Your task to perform on an android device: create a new album in the google photos Image 0: 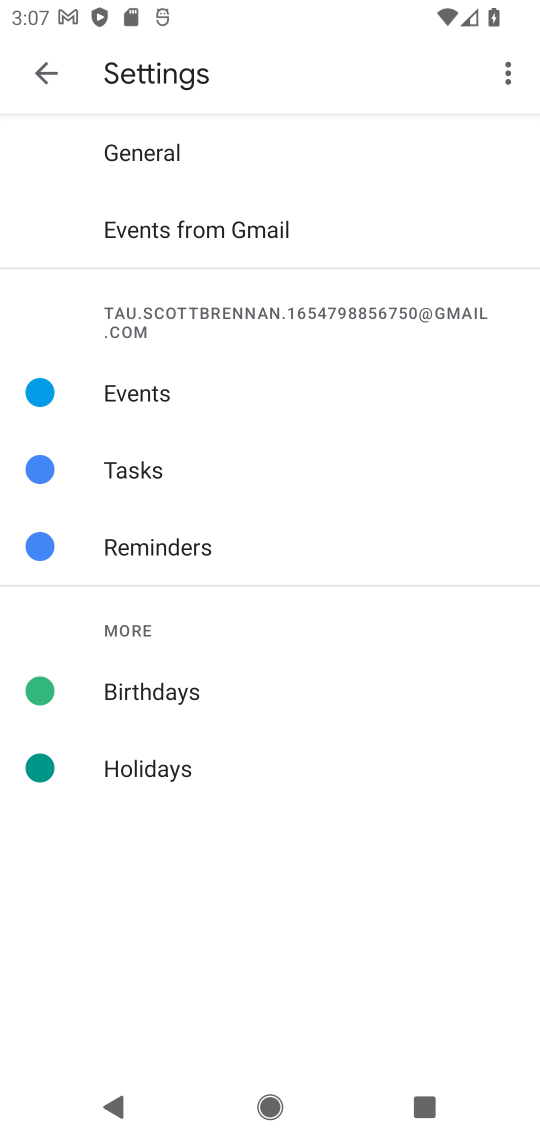
Step 0: press home button
Your task to perform on an android device: create a new album in the google photos Image 1: 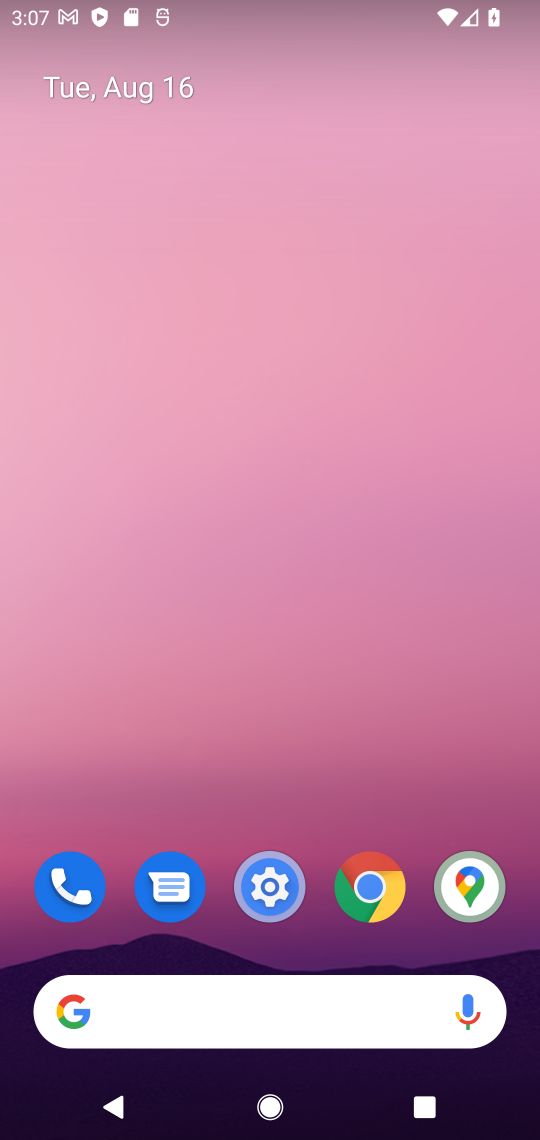
Step 1: drag from (338, 715) to (320, 24)
Your task to perform on an android device: create a new album in the google photos Image 2: 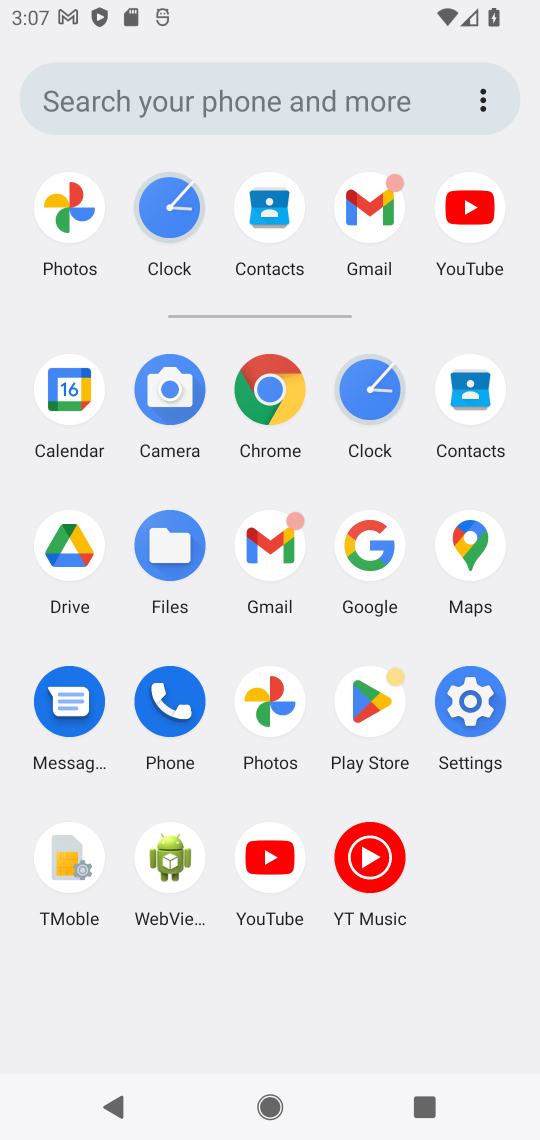
Step 2: click (279, 713)
Your task to perform on an android device: create a new album in the google photos Image 3: 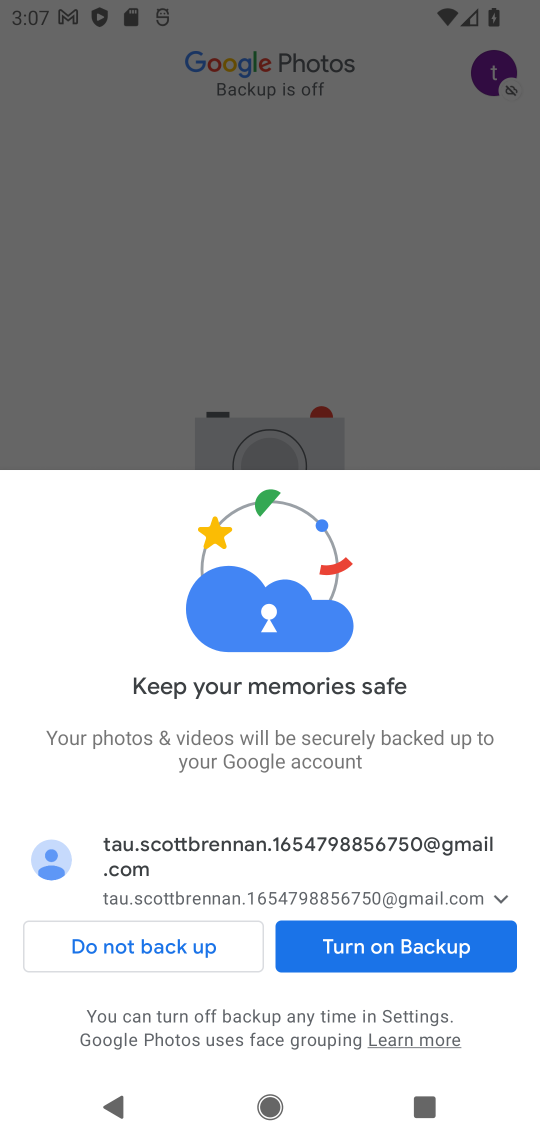
Step 3: click (396, 935)
Your task to perform on an android device: create a new album in the google photos Image 4: 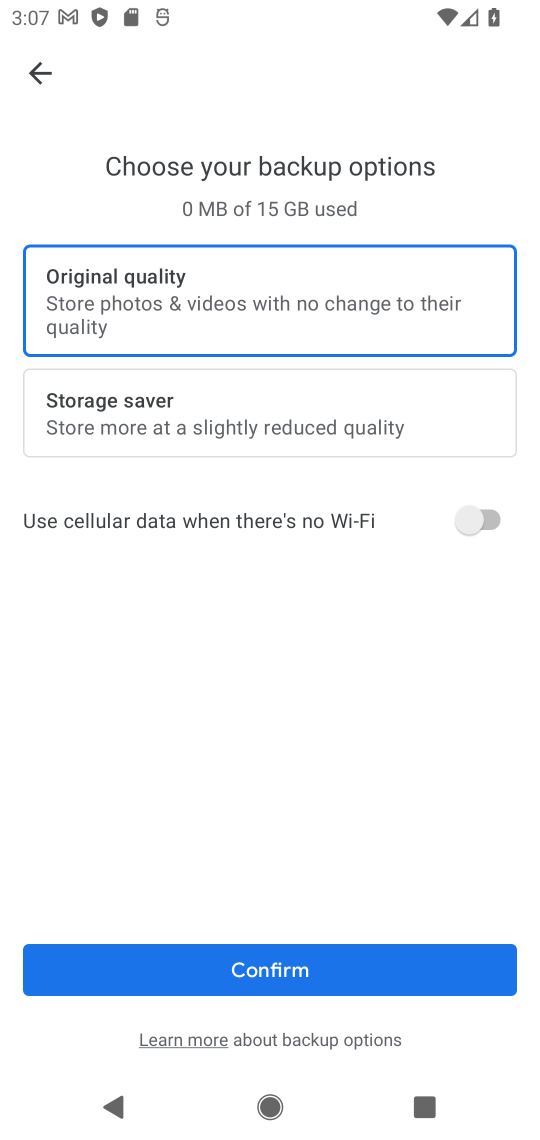
Step 4: click (300, 964)
Your task to perform on an android device: create a new album in the google photos Image 5: 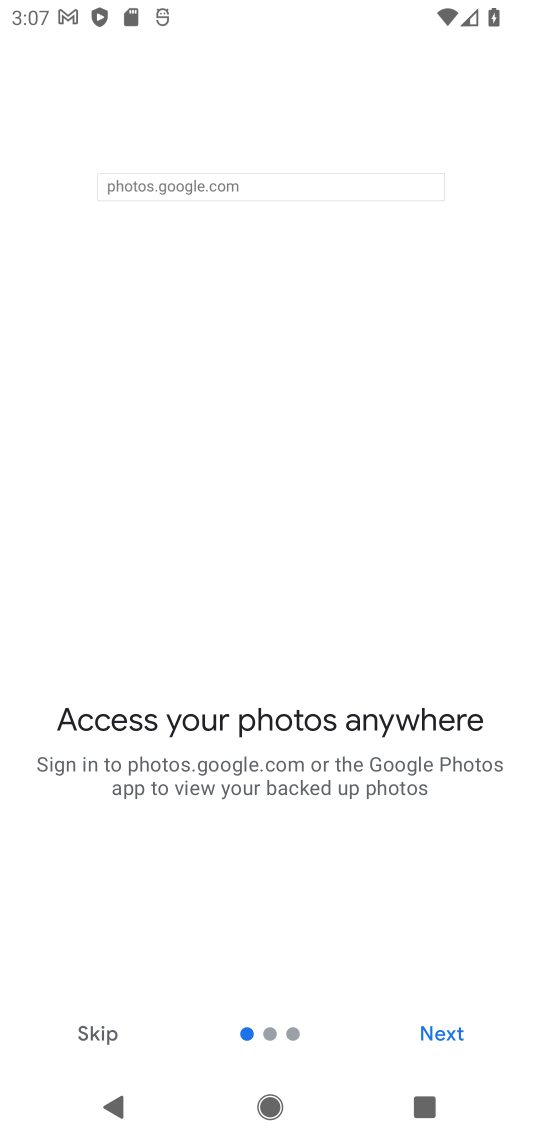
Step 5: click (438, 1026)
Your task to perform on an android device: create a new album in the google photos Image 6: 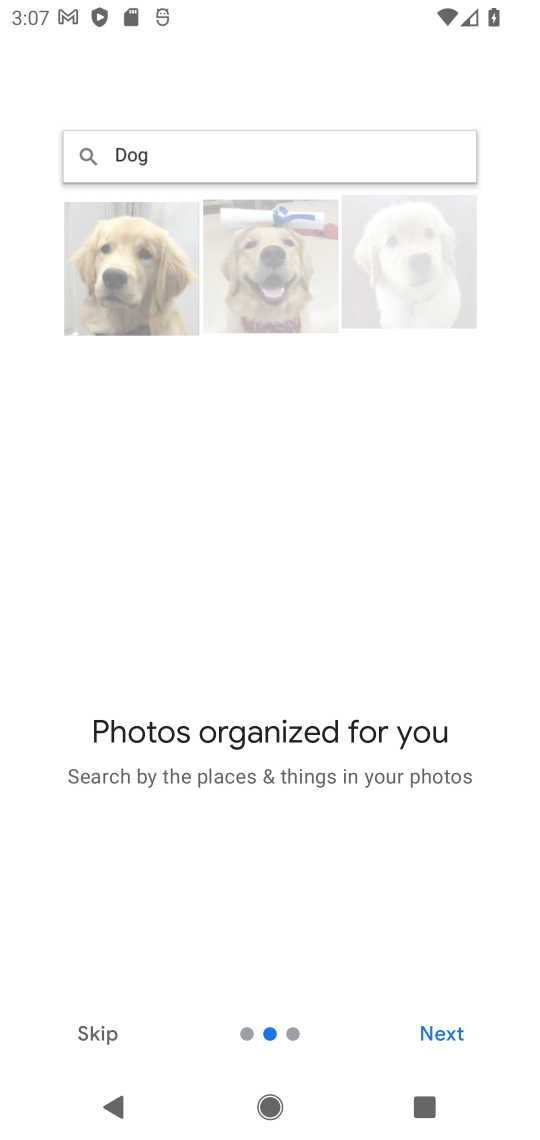
Step 6: click (438, 1026)
Your task to perform on an android device: create a new album in the google photos Image 7: 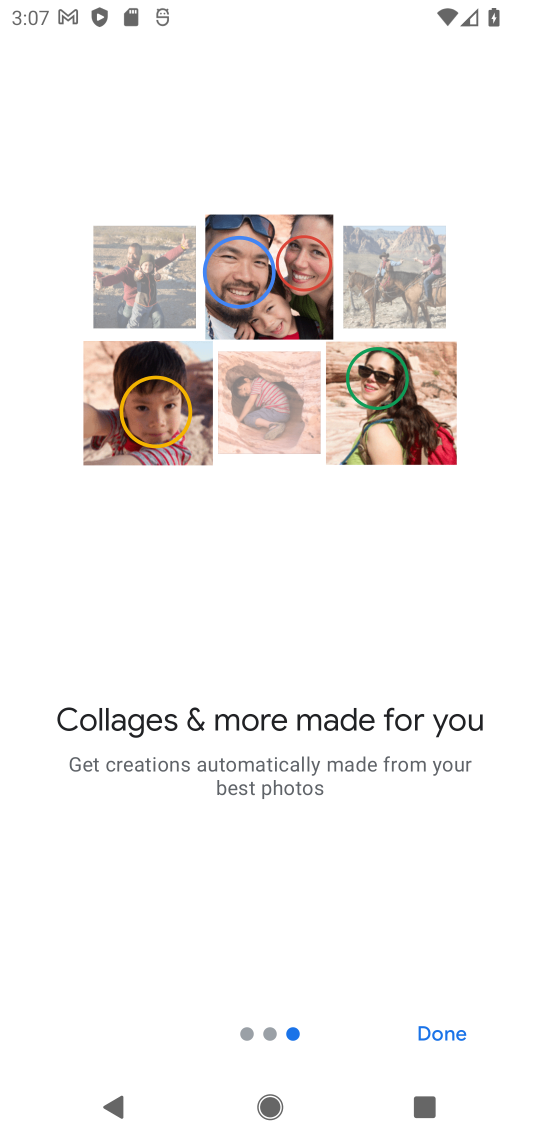
Step 7: click (438, 1026)
Your task to perform on an android device: create a new album in the google photos Image 8: 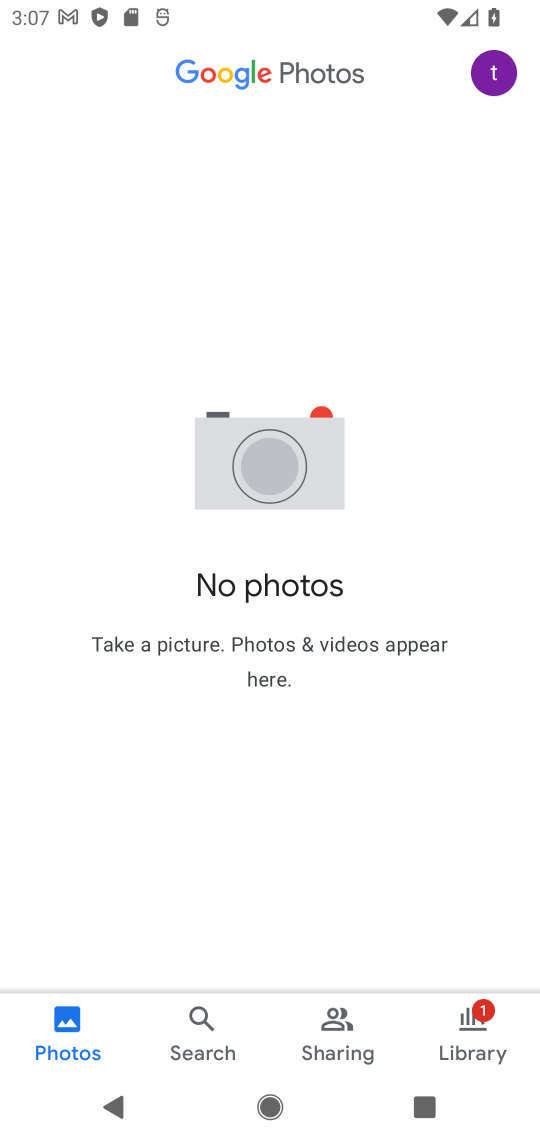
Step 8: click (482, 1058)
Your task to perform on an android device: create a new album in the google photos Image 9: 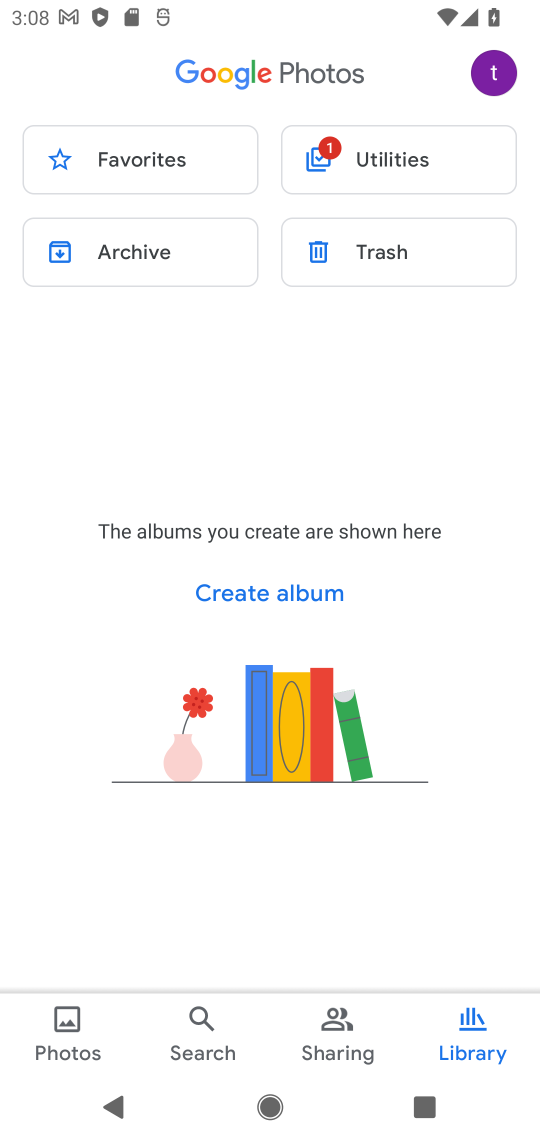
Step 9: click (317, 594)
Your task to perform on an android device: create a new album in the google photos Image 10: 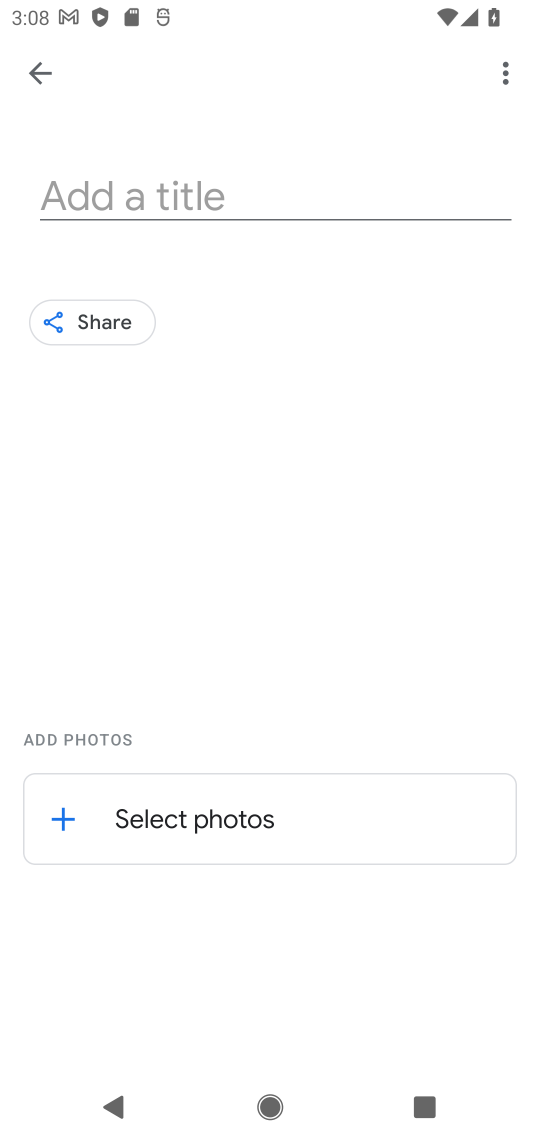
Step 10: click (357, 189)
Your task to perform on an android device: create a new album in the google photos Image 11: 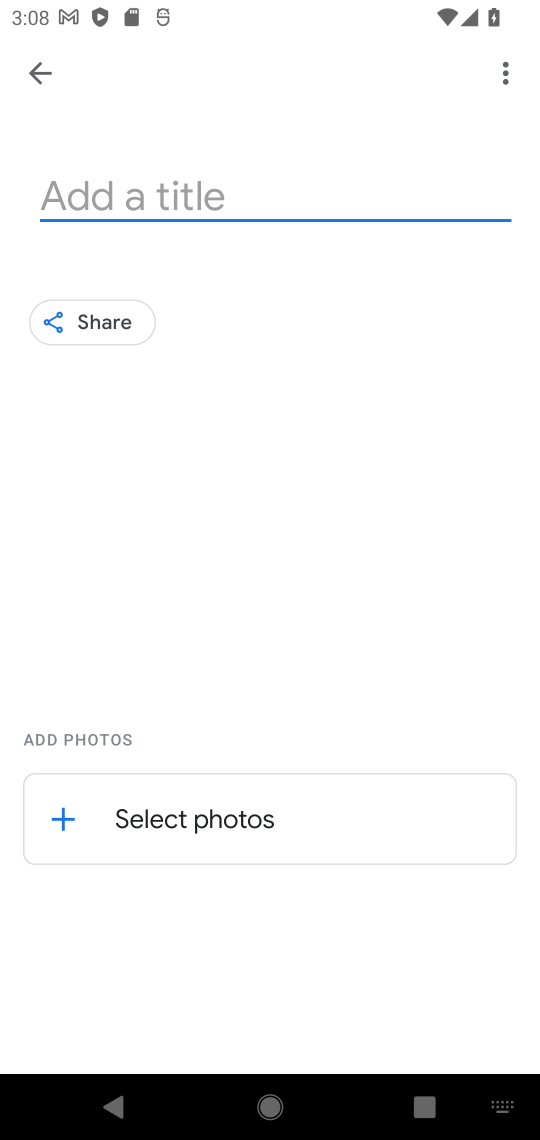
Step 11: type "poplin"
Your task to perform on an android device: create a new album in the google photos Image 12: 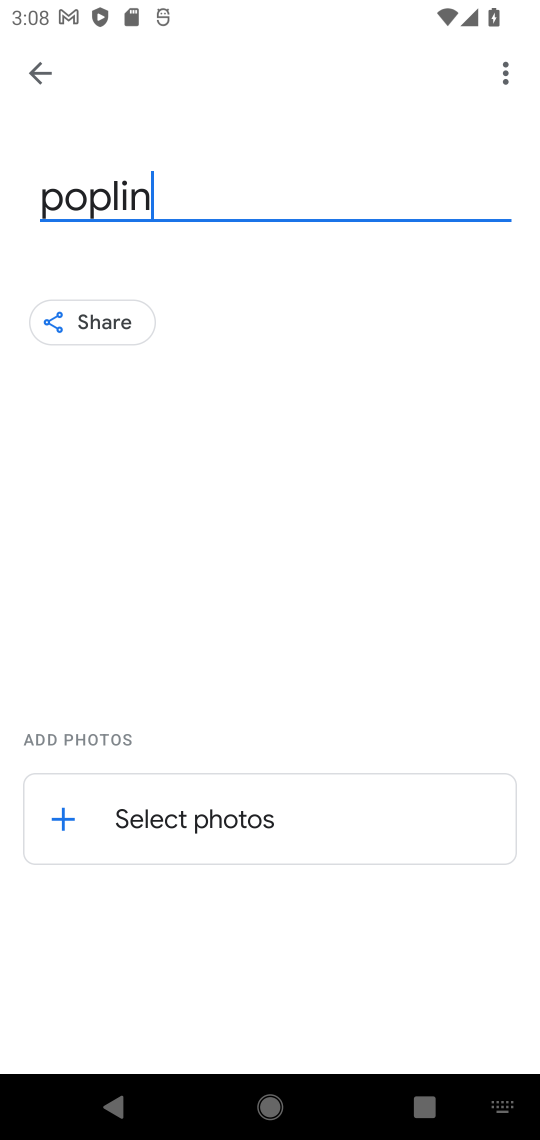
Step 12: click (201, 809)
Your task to perform on an android device: create a new album in the google photos Image 13: 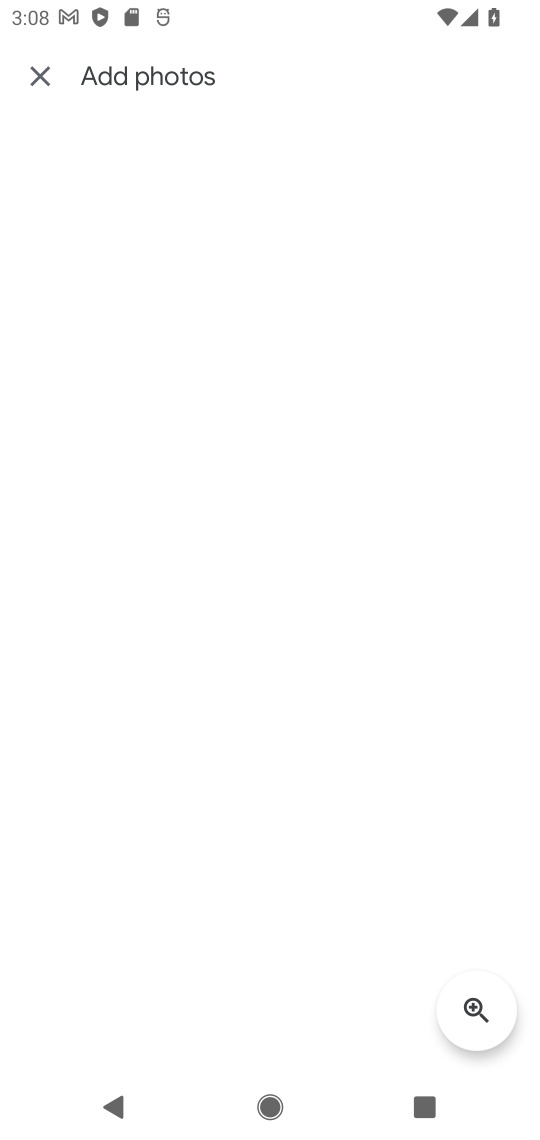
Step 13: click (40, 65)
Your task to perform on an android device: create a new album in the google photos Image 14: 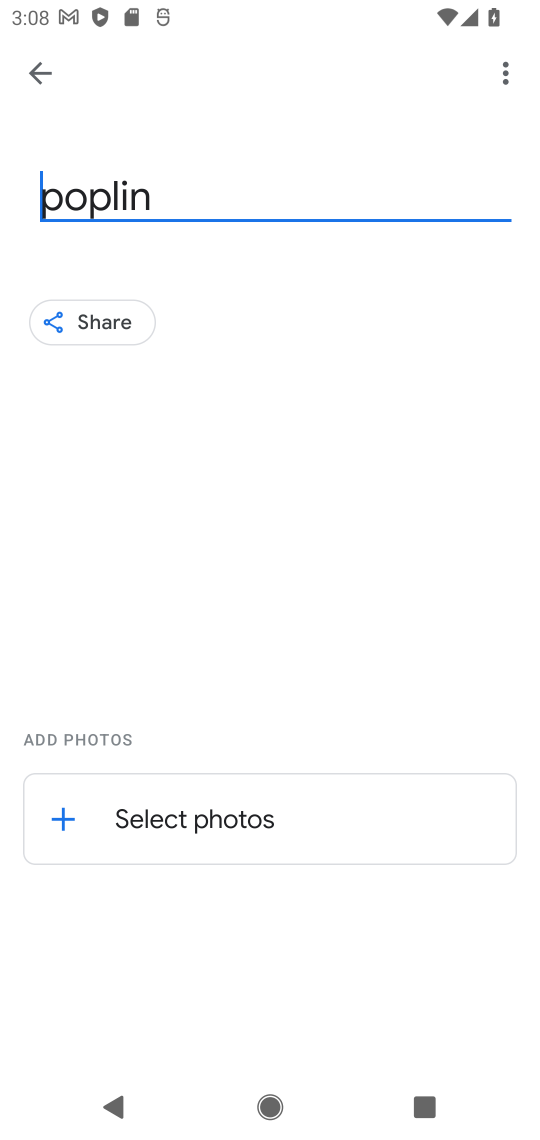
Step 14: click (516, 73)
Your task to perform on an android device: create a new album in the google photos Image 15: 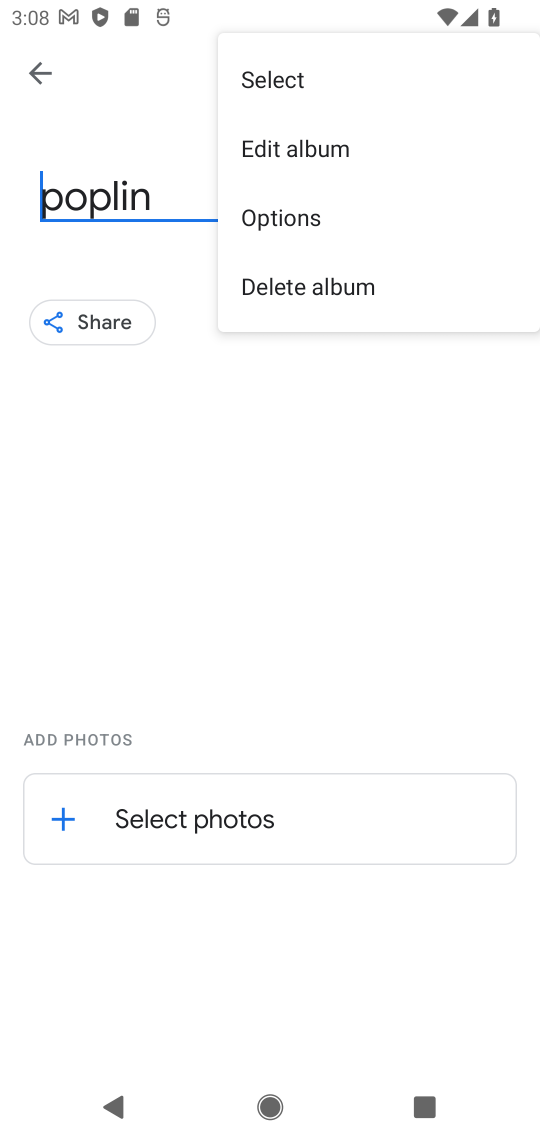
Step 15: click (418, 666)
Your task to perform on an android device: create a new album in the google photos Image 16: 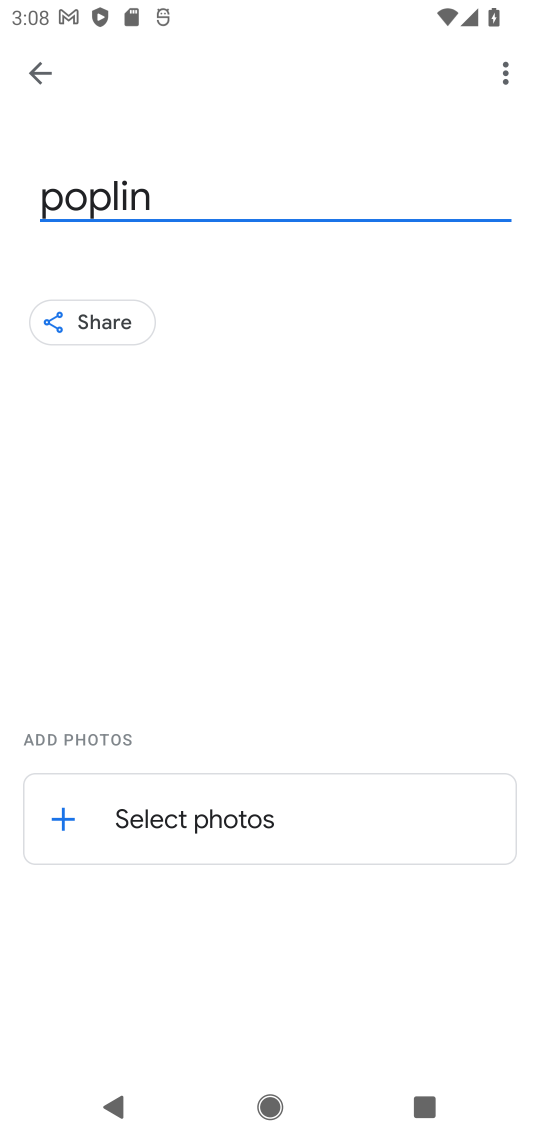
Step 16: click (512, 68)
Your task to perform on an android device: create a new album in the google photos Image 17: 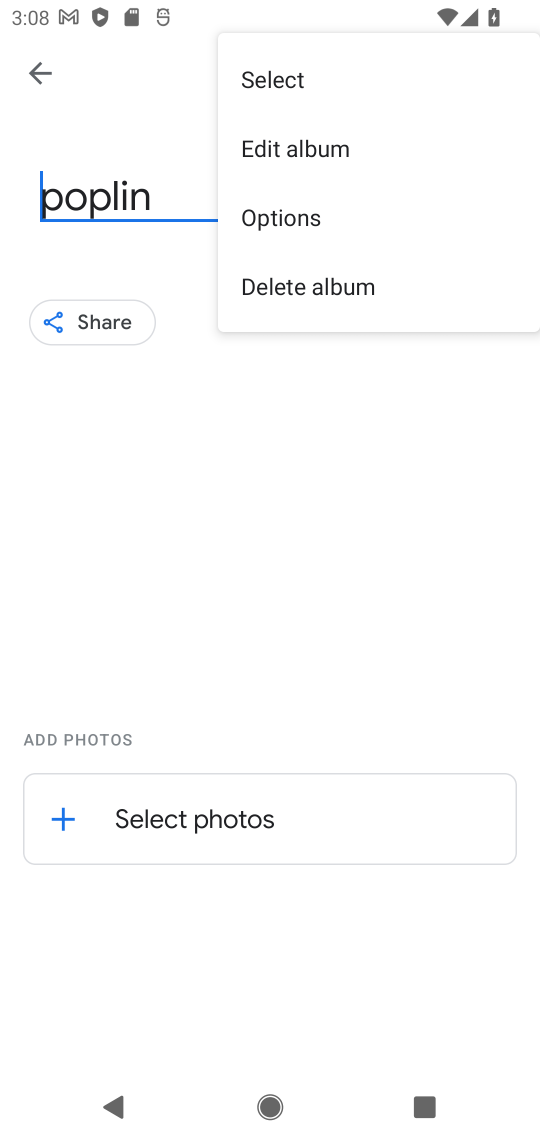
Step 17: click (327, 93)
Your task to perform on an android device: create a new album in the google photos Image 18: 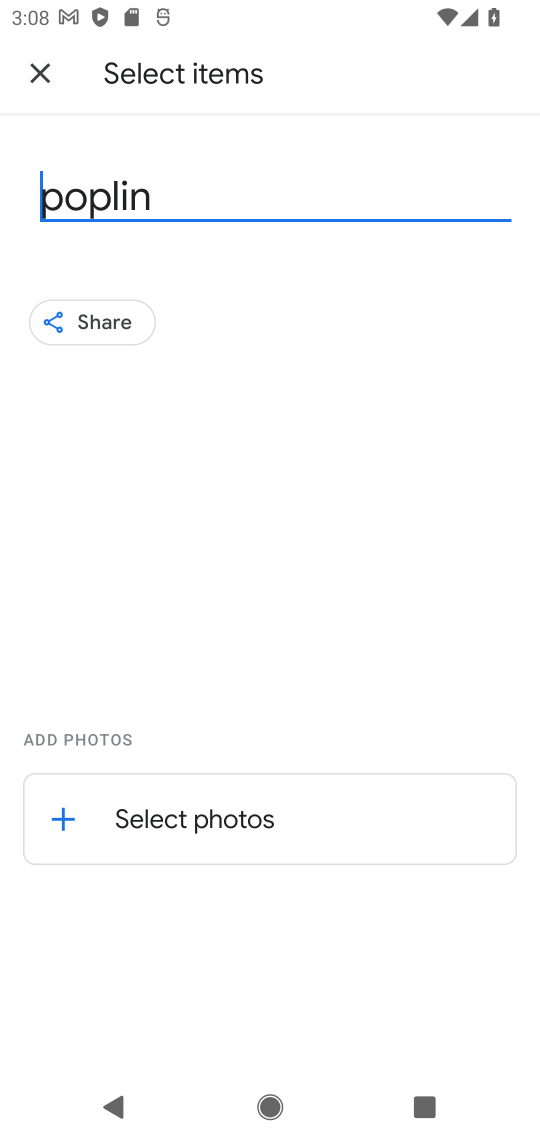
Step 18: task complete